Your task to perform on an android device: set the timer Image 0: 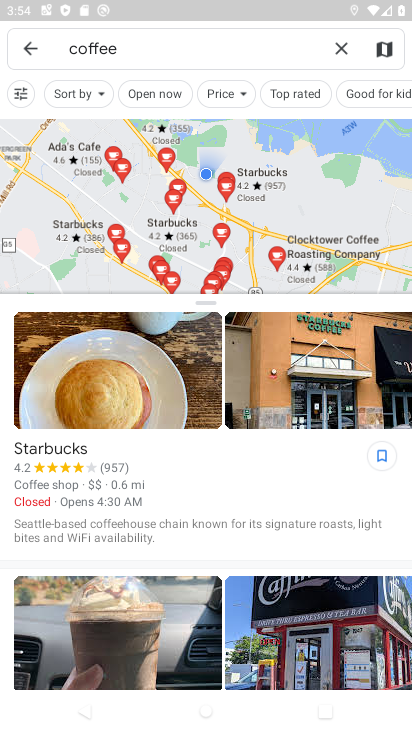
Step 0: press home button
Your task to perform on an android device: set the timer Image 1: 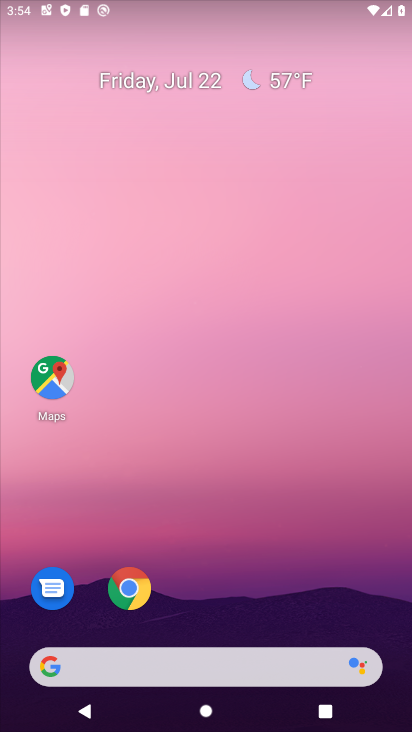
Step 1: drag from (210, 657) to (163, 44)
Your task to perform on an android device: set the timer Image 2: 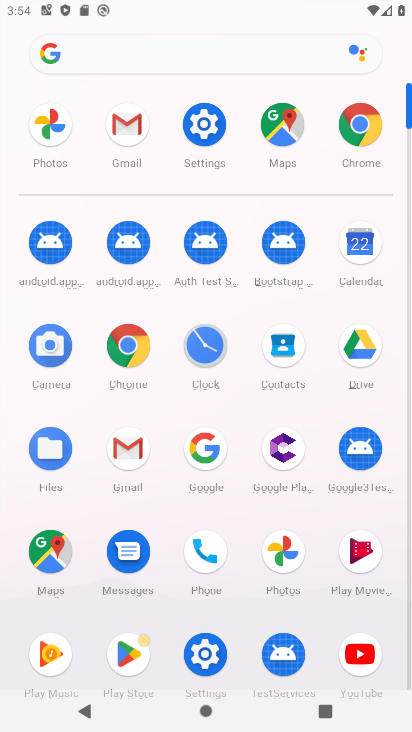
Step 2: click (203, 364)
Your task to perform on an android device: set the timer Image 3: 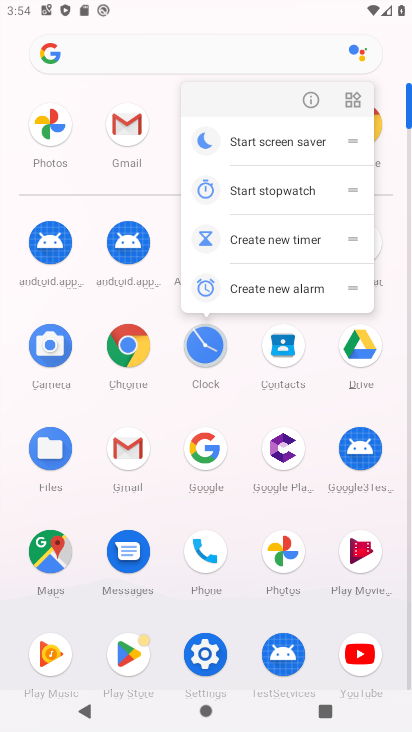
Step 3: click (207, 355)
Your task to perform on an android device: set the timer Image 4: 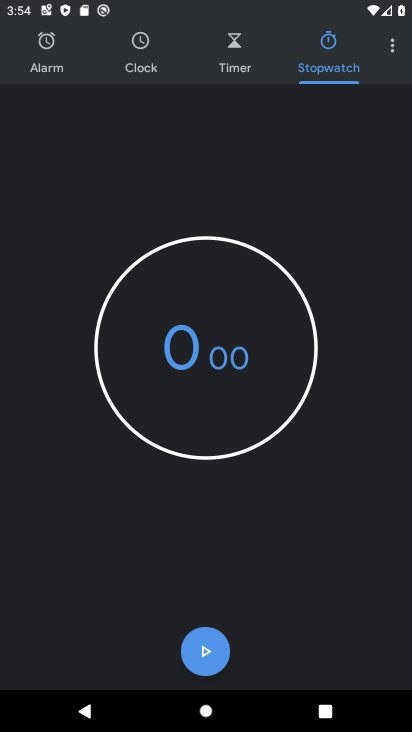
Step 4: click (219, 57)
Your task to perform on an android device: set the timer Image 5: 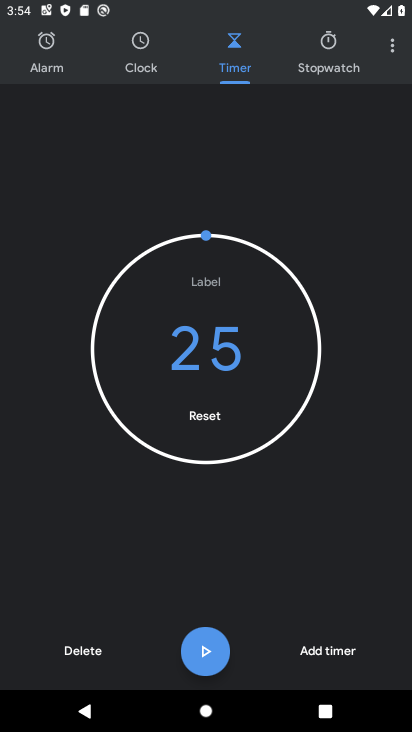
Step 5: click (88, 658)
Your task to perform on an android device: set the timer Image 6: 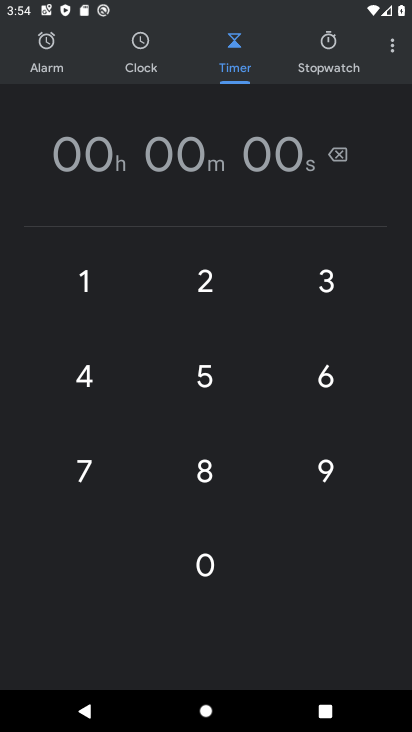
Step 6: task complete